Your task to perform on an android device: Clear all items from cart on bestbuy.com. Image 0: 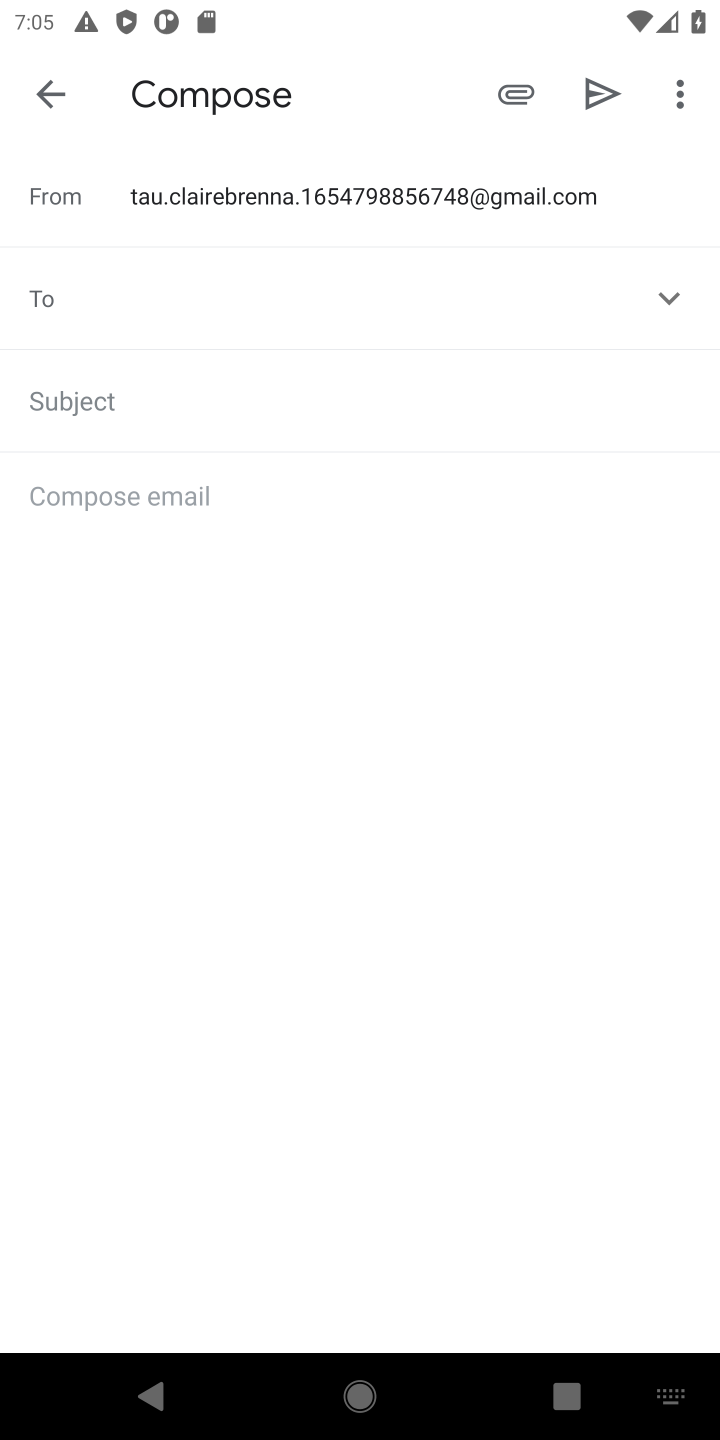
Step 0: press home button
Your task to perform on an android device: Clear all items from cart on bestbuy.com. Image 1: 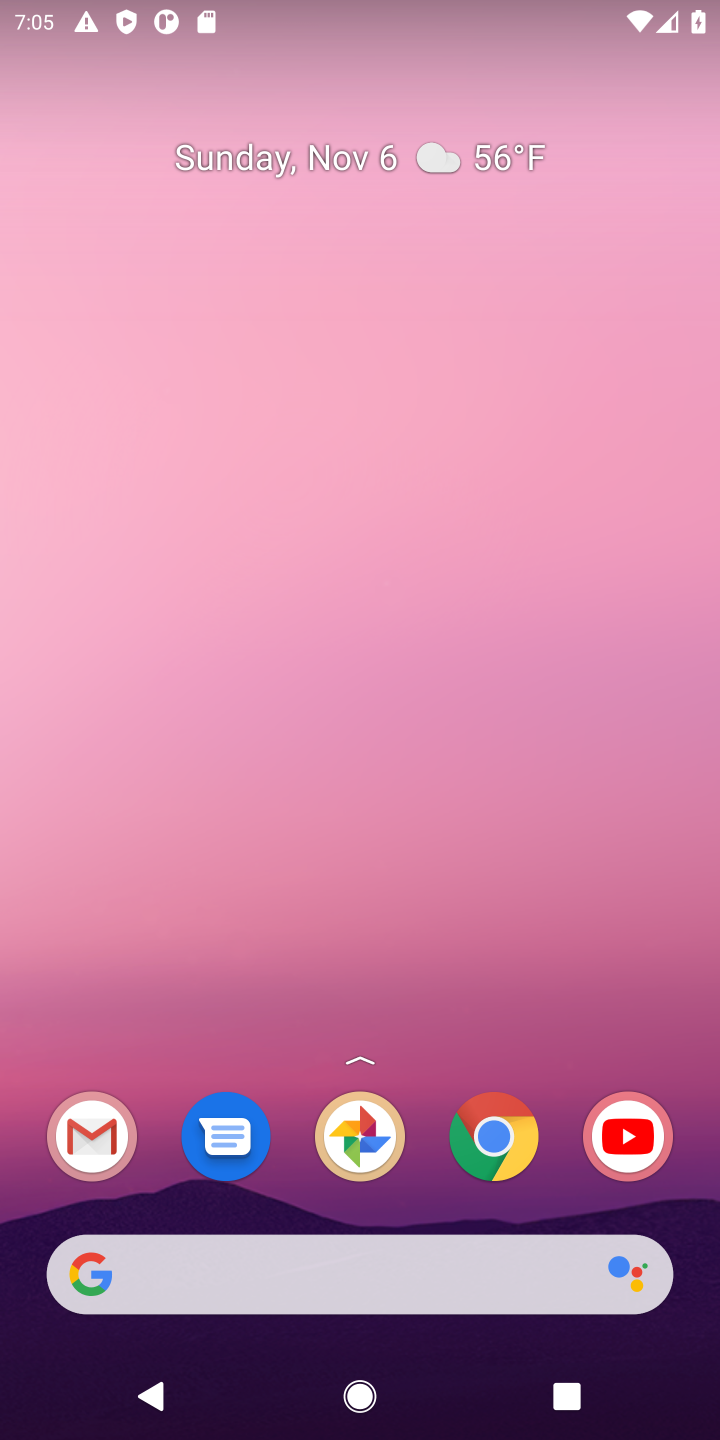
Step 1: click (474, 1277)
Your task to perform on an android device: Clear all items from cart on bestbuy.com. Image 2: 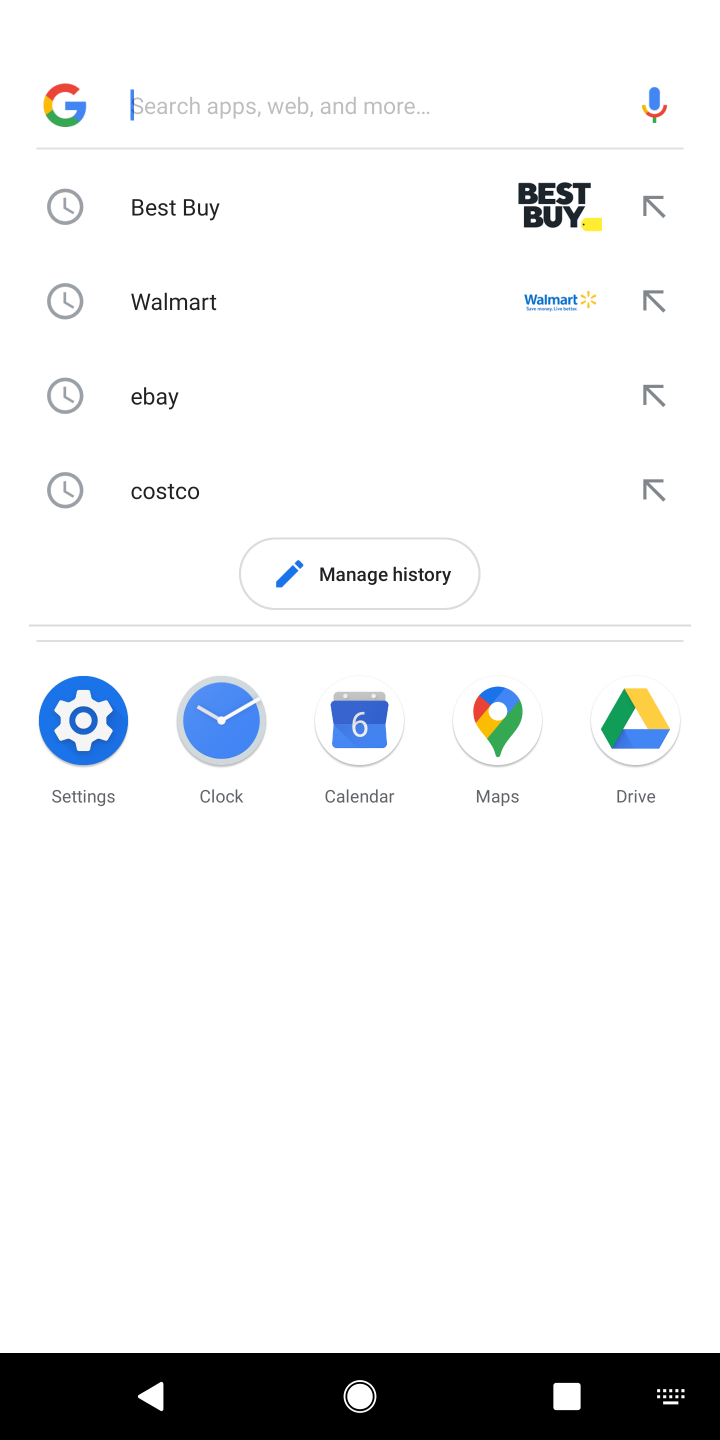
Step 2: click (309, 211)
Your task to perform on an android device: Clear all items from cart on bestbuy.com. Image 3: 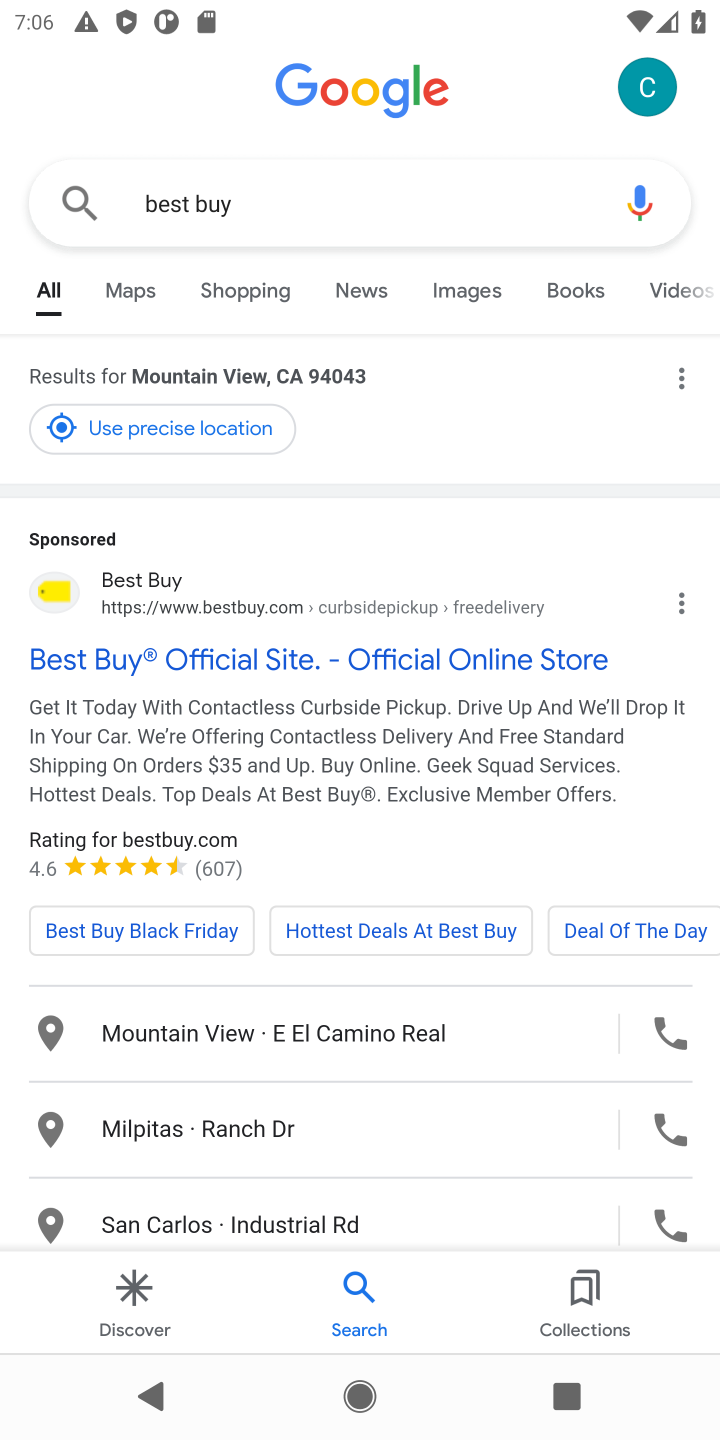
Step 3: click (88, 681)
Your task to perform on an android device: Clear all items from cart on bestbuy.com. Image 4: 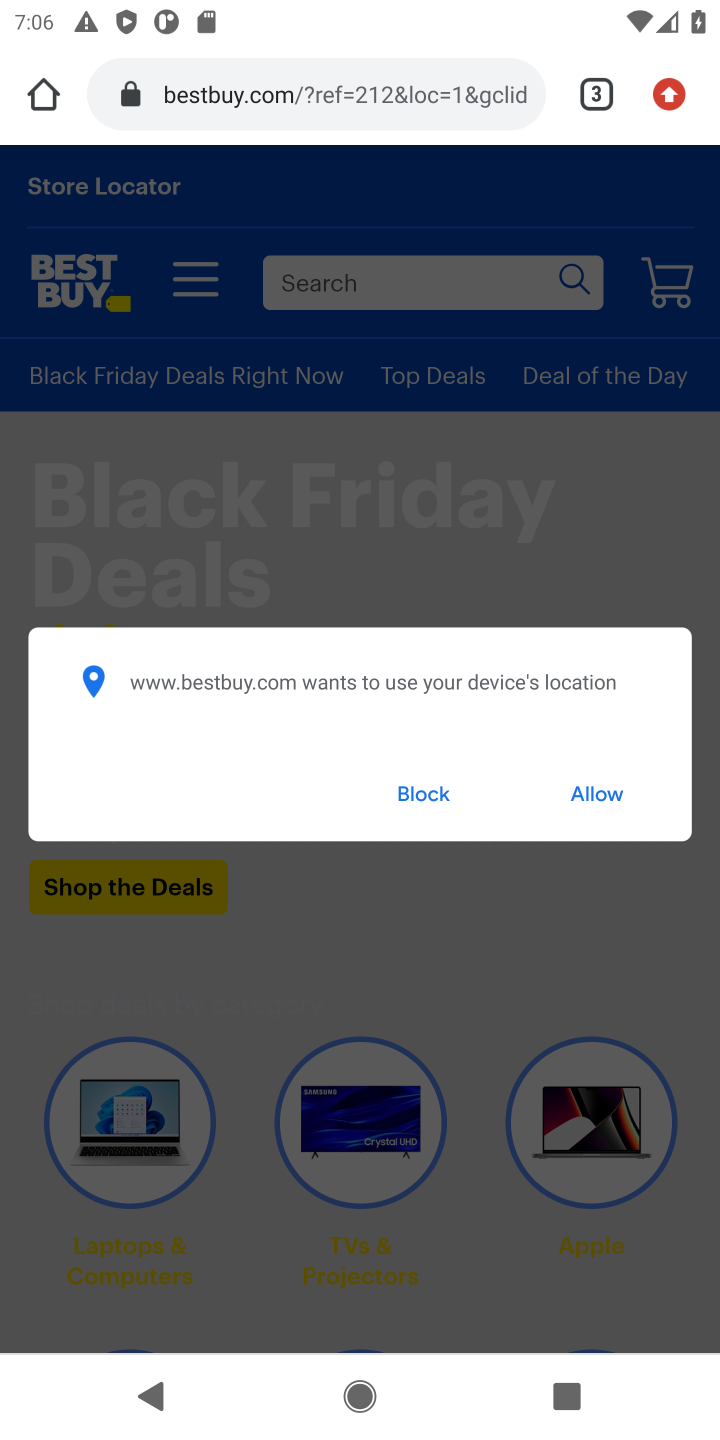
Step 4: click (353, 290)
Your task to perform on an android device: Clear all items from cart on bestbuy.com. Image 5: 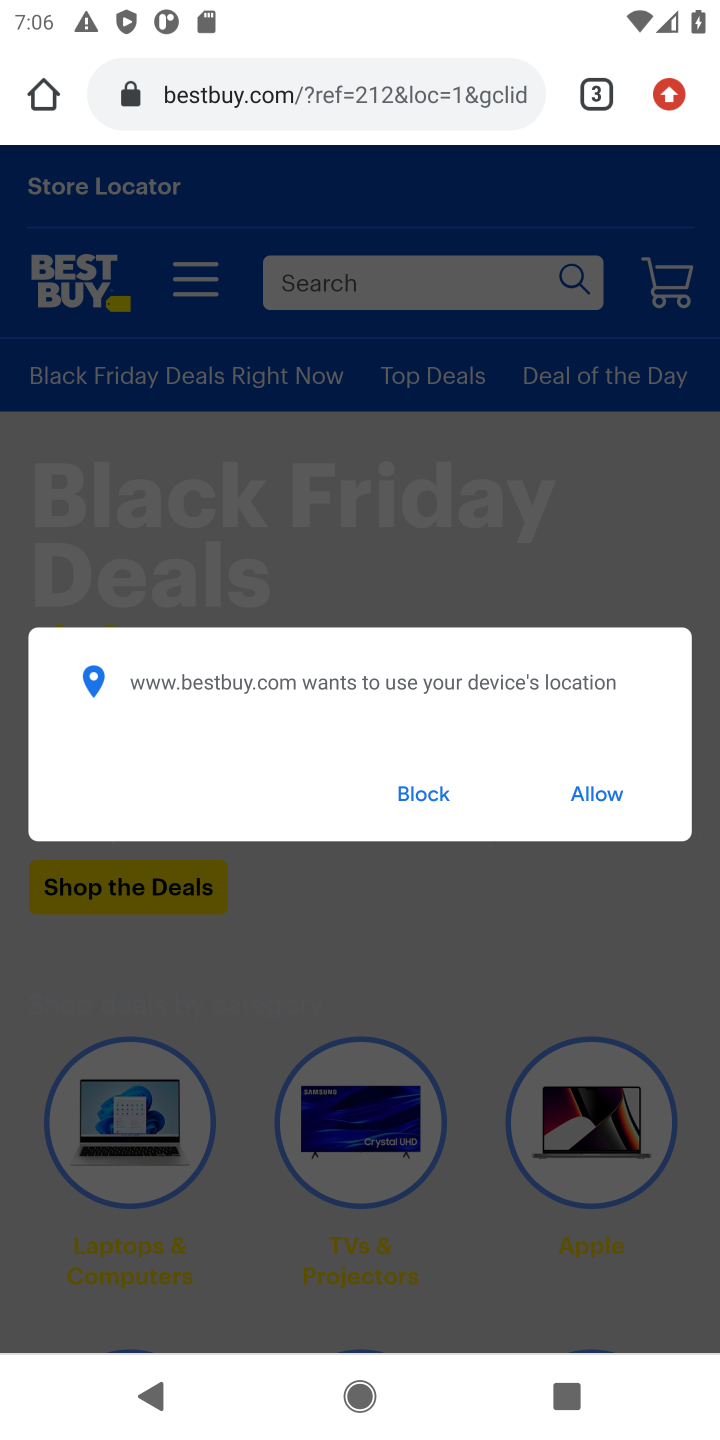
Step 5: click (651, 788)
Your task to perform on an android device: Clear all items from cart on bestbuy.com. Image 6: 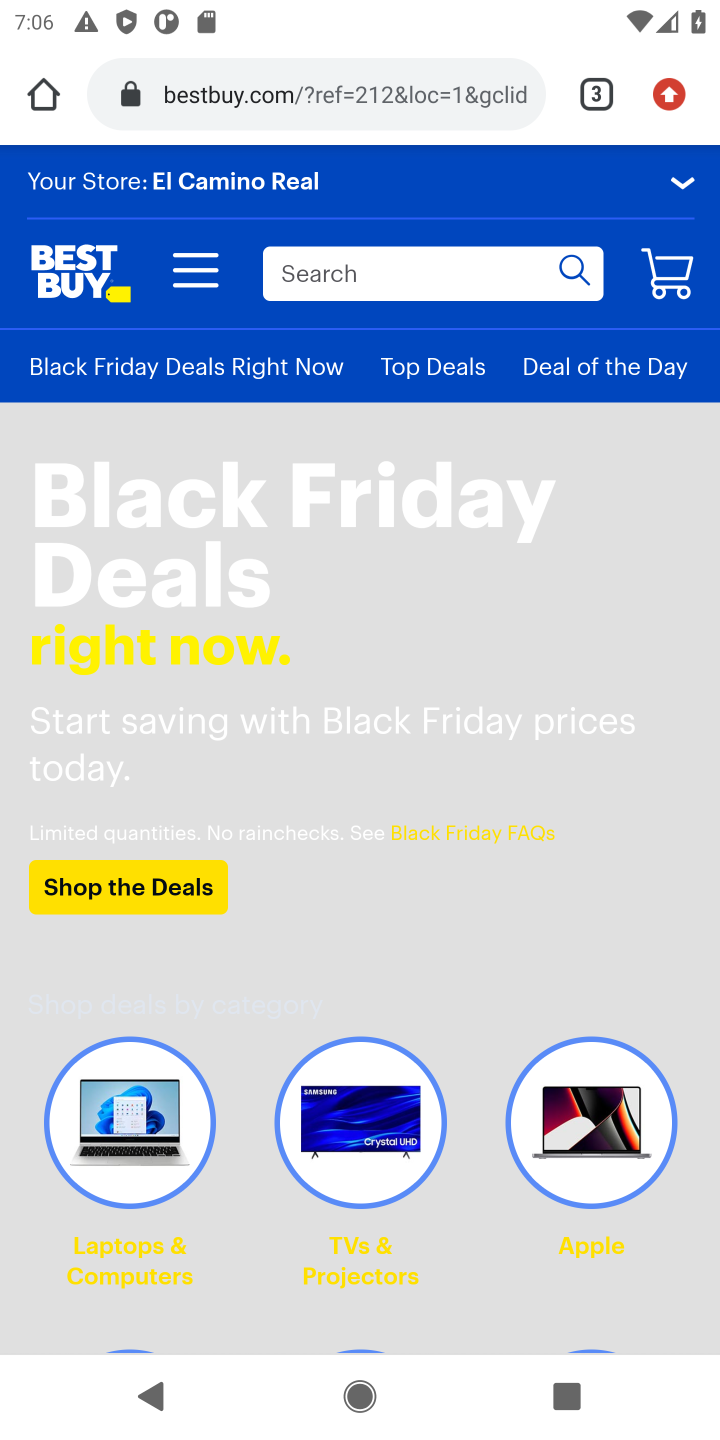
Step 6: click (412, 289)
Your task to perform on an android device: Clear all items from cart on bestbuy.com. Image 7: 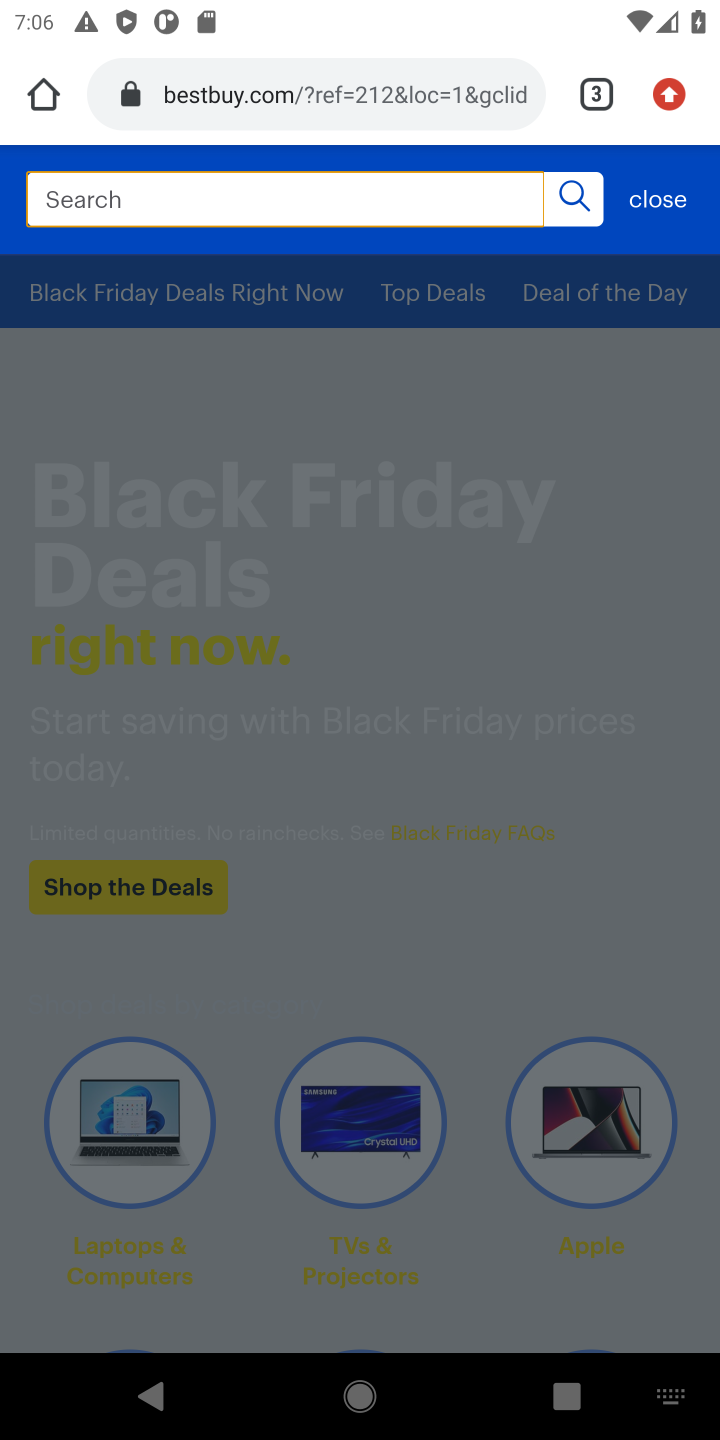
Step 7: task complete